Your task to perform on an android device: Open calendar and show me the third week of next month Image 0: 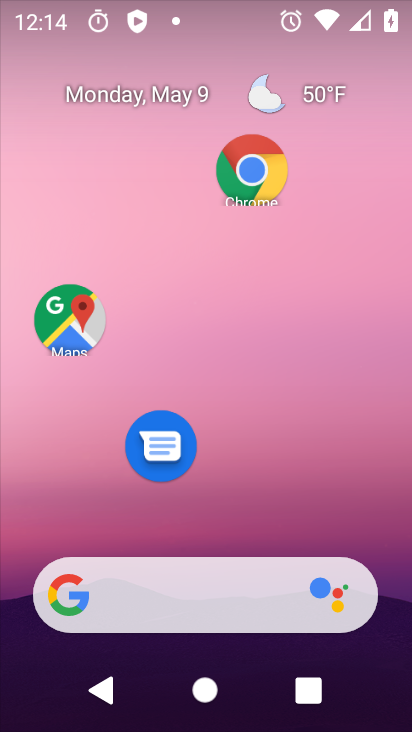
Step 0: drag from (248, 516) to (205, 145)
Your task to perform on an android device: Open calendar and show me the third week of next month Image 1: 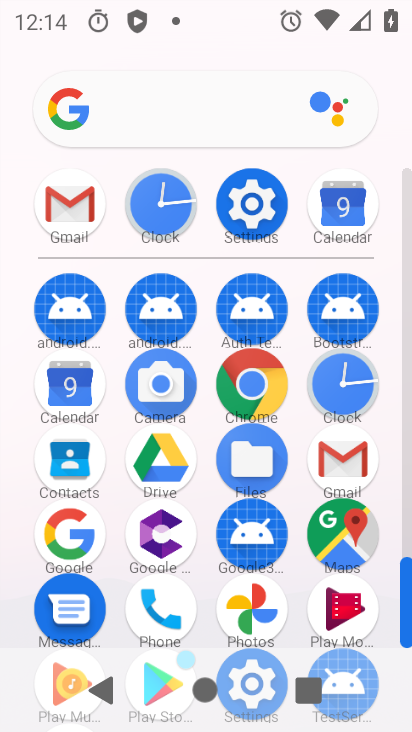
Step 1: click (84, 394)
Your task to perform on an android device: Open calendar and show me the third week of next month Image 2: 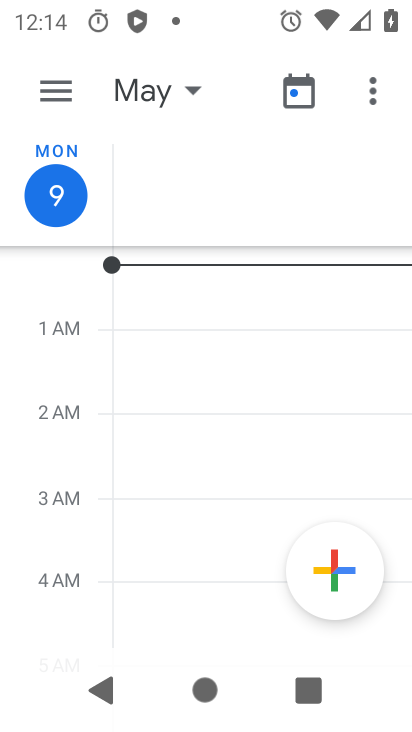
Step 2: click (174, 105)
Your task to perform on an android device: Open calendar and show me the third week of next month Image 3: 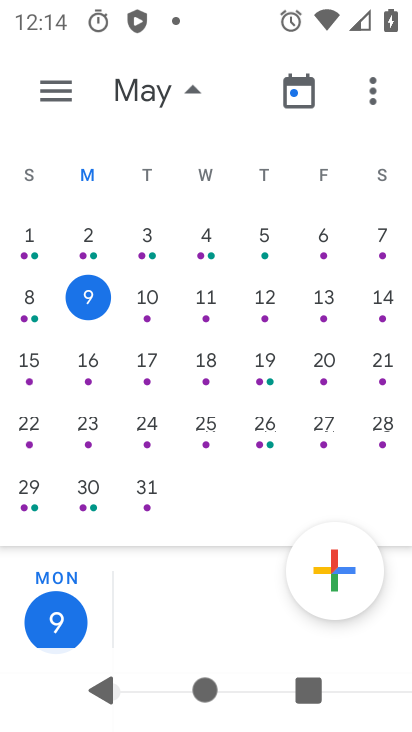
Step 3: drag from (335, 363) to (1, 364)
Your task to perform on an android device: Open calendar and show me the third week of next month Image 4: 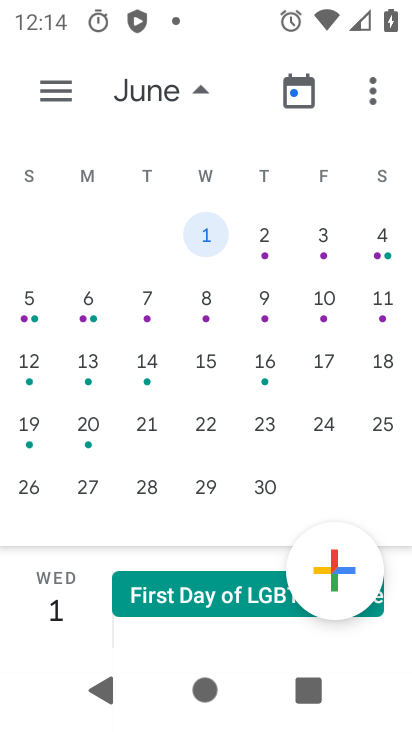
Step 4: click (40, 373)
Your task to perform on an android device: Open calendar and show me the third week of next month Image 5: 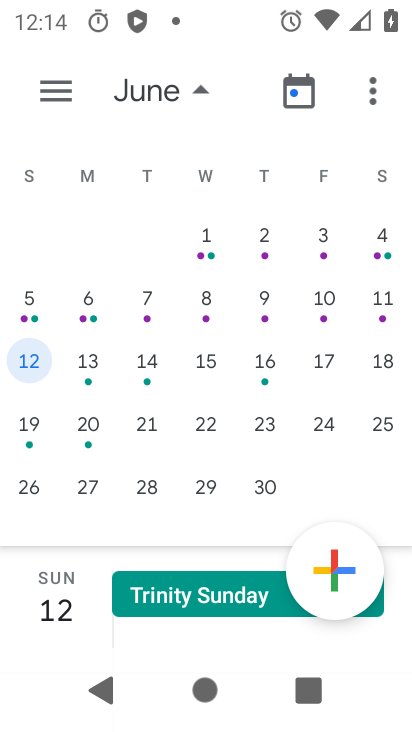
Step 5: task complete